Your task to perform on an android device: Go to eBay Image 0: 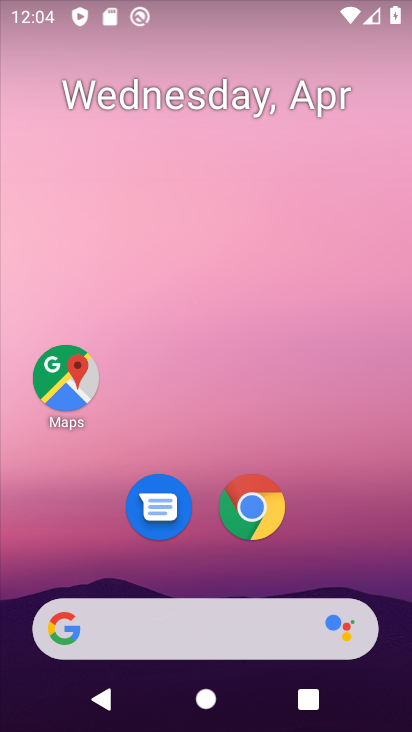
Step 0: click (194, 201)
Your task to perform on an android device: Go to eBay Image 1: 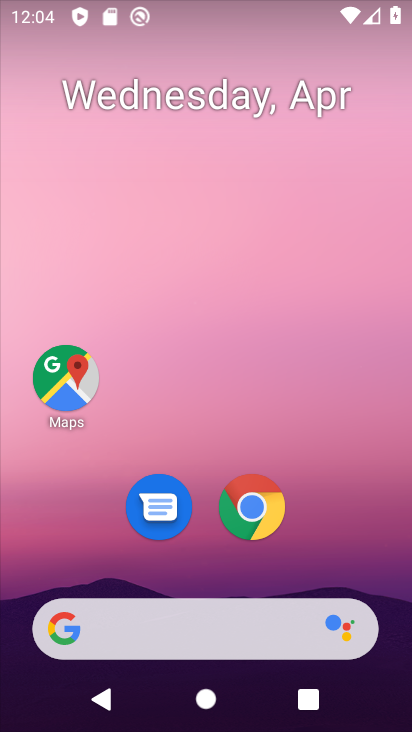
Step 1: click (203, 617)
Your task to perform on an android device: Go to eBay Image 2: 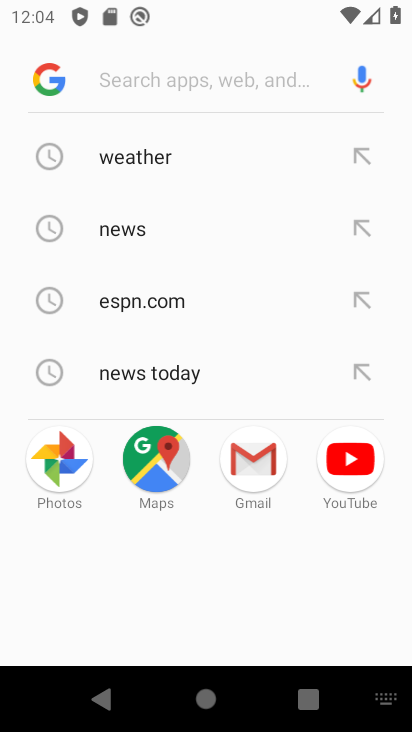
Step 2: type "eBay"
Your task to perform on an android device: Go to eBay Image 3: 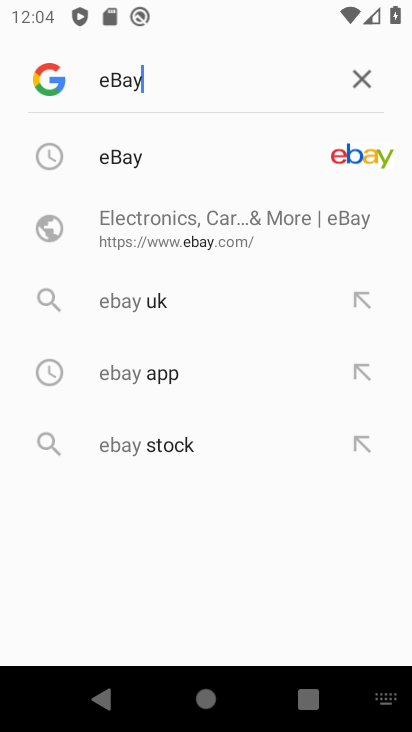
Step 3: click (161, 153)
Your task to perform on an android device: Go to eBay Image 4: 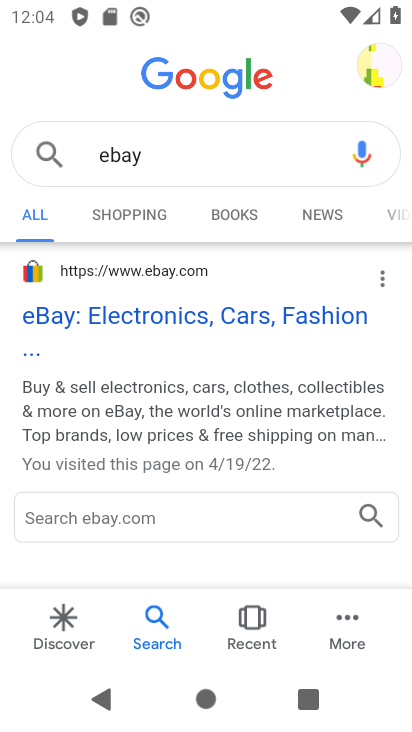
Step 4: click (135, 301)
Your task to perform on an android device: Go to eBay Image 5: 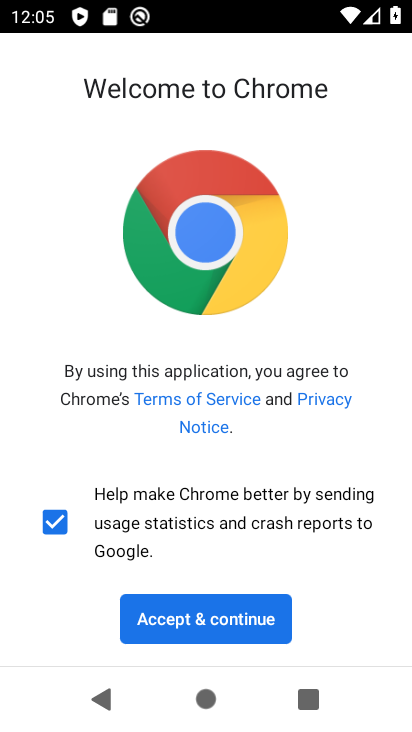
Step 5: click (223, 617)
Your task to perform on an android device: Go to eBay Image 6: 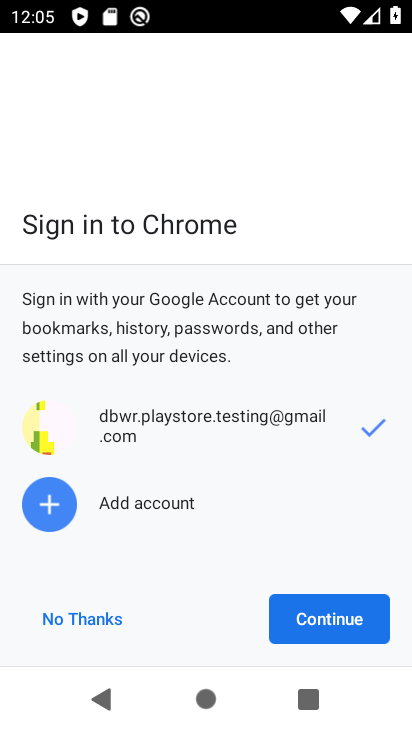
Step 6: click (329, 614)
Your task to perform on an android device: Go to eBay Image 7: 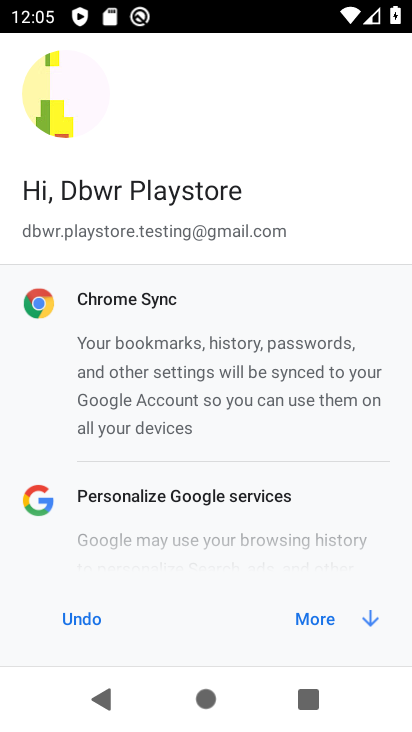
Step 7: click (330, 613)
Your task to perform on an android device: Go to eBay Image 8: 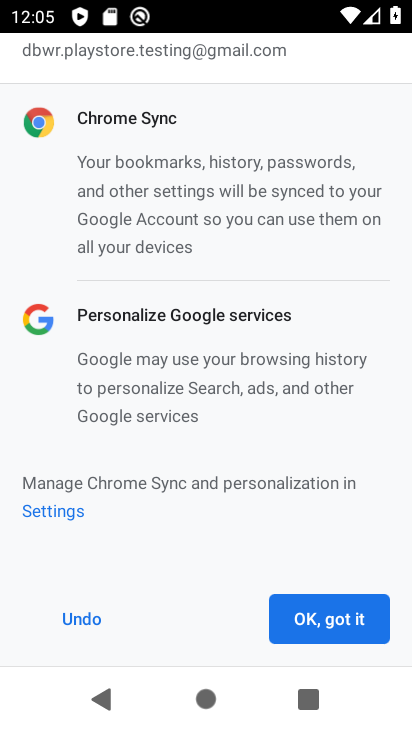
Step 8: click (330, 613)
Your task to perform on an android device: Go to eBay Image 9: 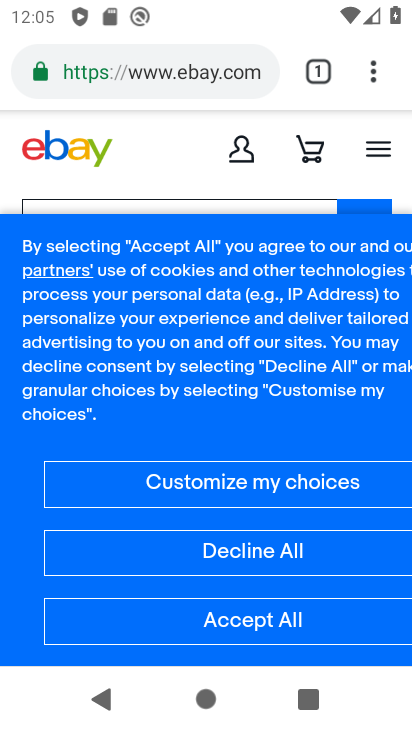
Step 9: task complete